Your task to perform on an android device: open device folders in google photos Image 0: 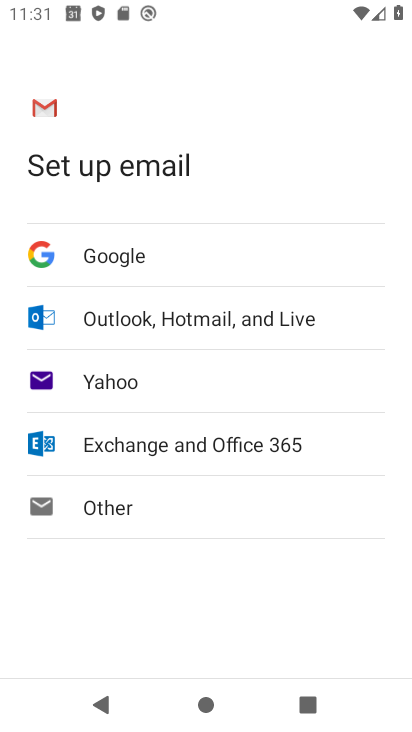
Step 0: press home button
Your task to perform on an android device: open device folders in google photos Image 1: 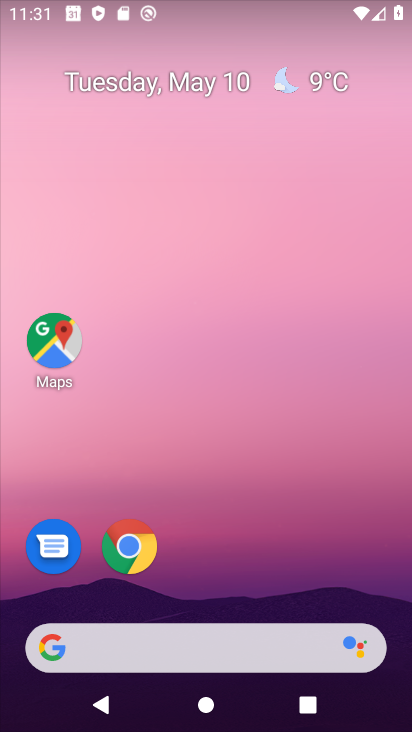
Step 1: drag from (217, 560) to (191, 247)
Your task to perform on an android device: open device folders in google photos Image 2: 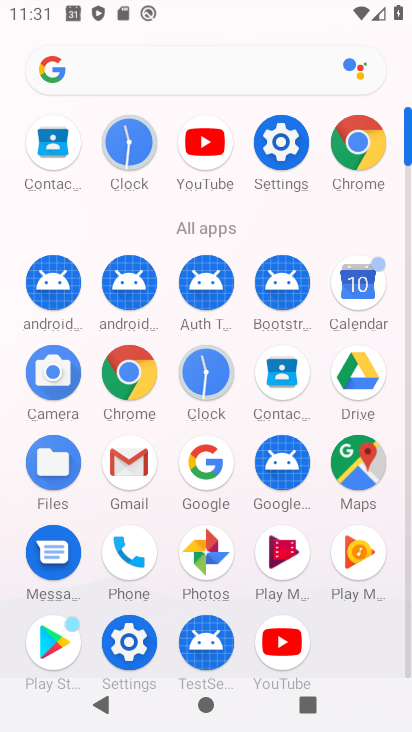
Step 2: click (191, 537)
Your task to perform on an android device: open device folders in google photos Image 3: 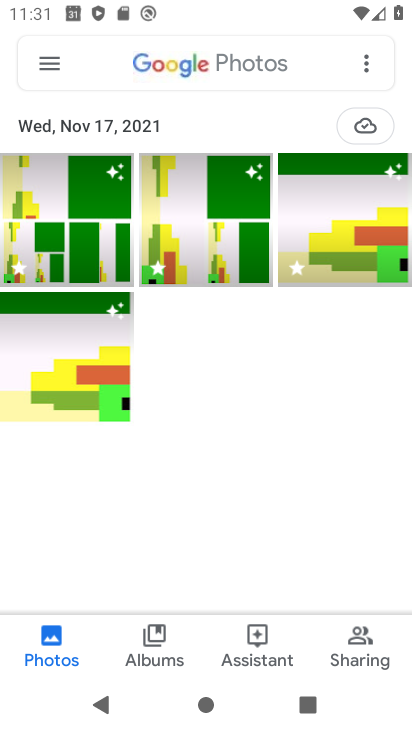
Step 3: click (40, 77)
Your task to perform on an android device: open device folders in google photos Image 4: 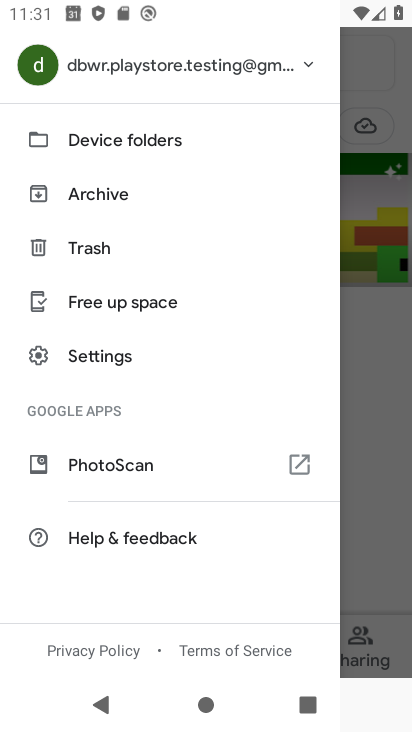
Step 4: click (100, 143)
Your task to perform on an android device: open device folders in google photos Image 5: 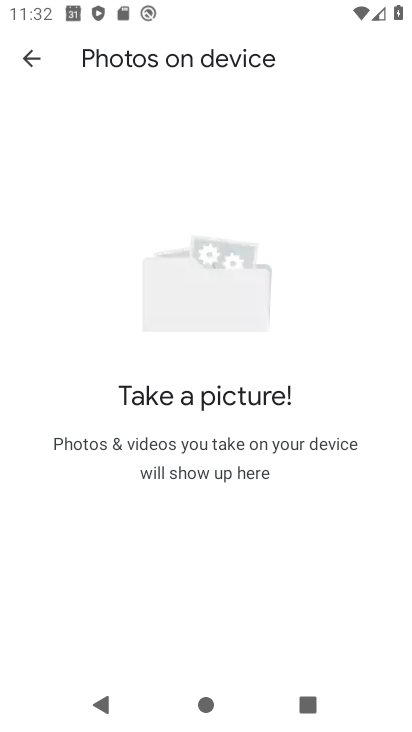
Step 5: task complete